Your task to perform on an android device: open app "eBay: The shopping marketplace" (install if not already installed) Image 0: 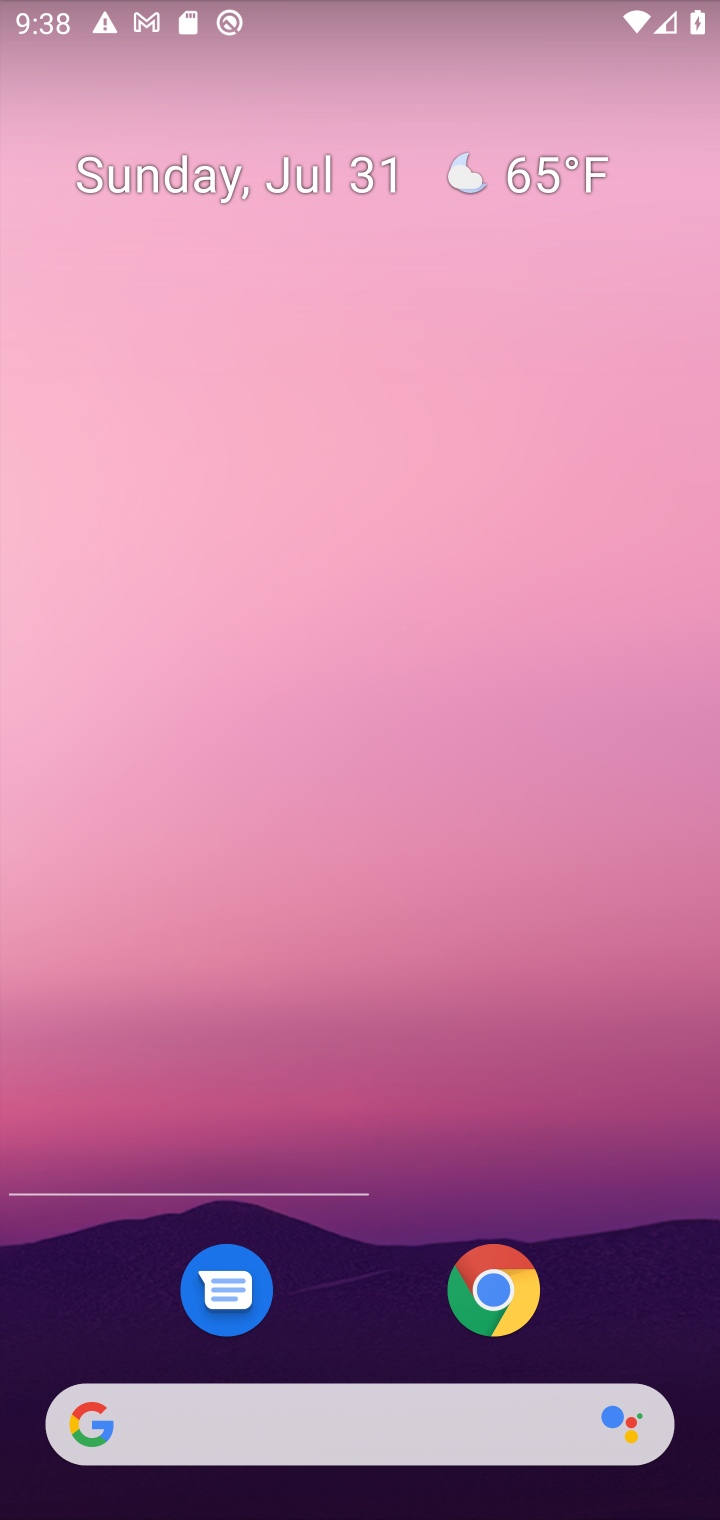
Step 0: press home button
Your task to perform on an android device: open app "eBay: The shopping marketplace" (install if not already installed) Image 1: 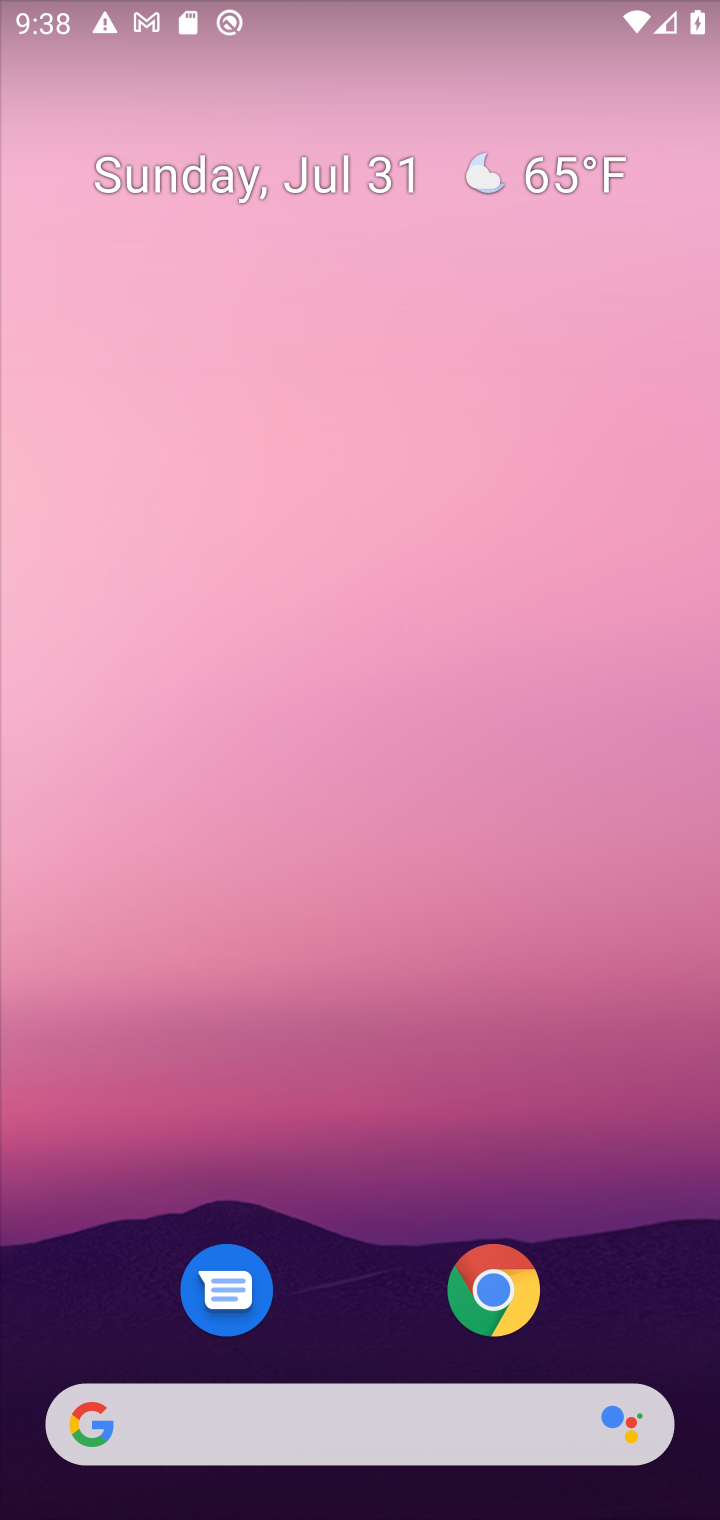
Step 1: drag from (600, 1287) to (534, 97)
Your task to perform on an android device: open app "eBay: The shopping marketplace" (install if not already installed) Image 2: 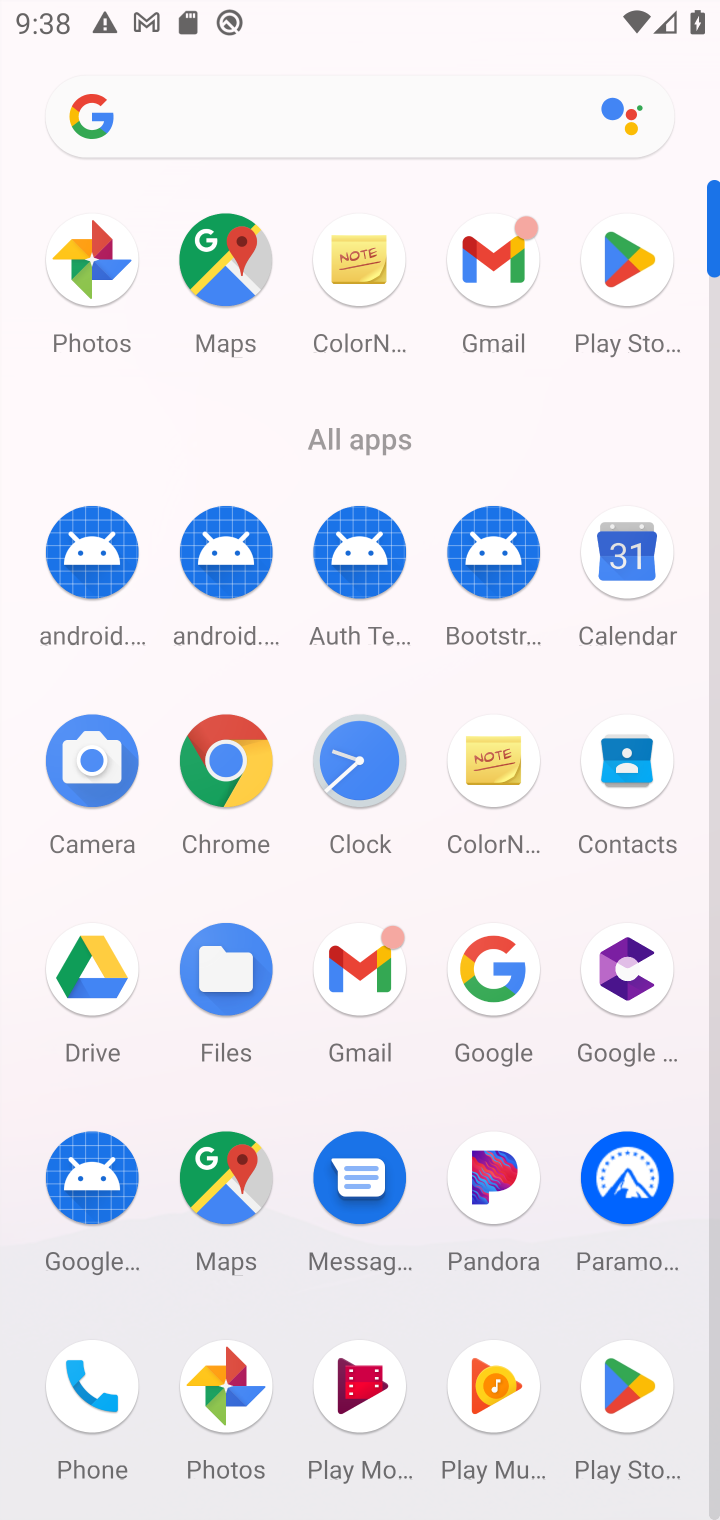
Step 2: click (619, 272)
Your task to perform on an android device: open app "eBay: The shopping marketplace" (install if not already installed) Image 3: 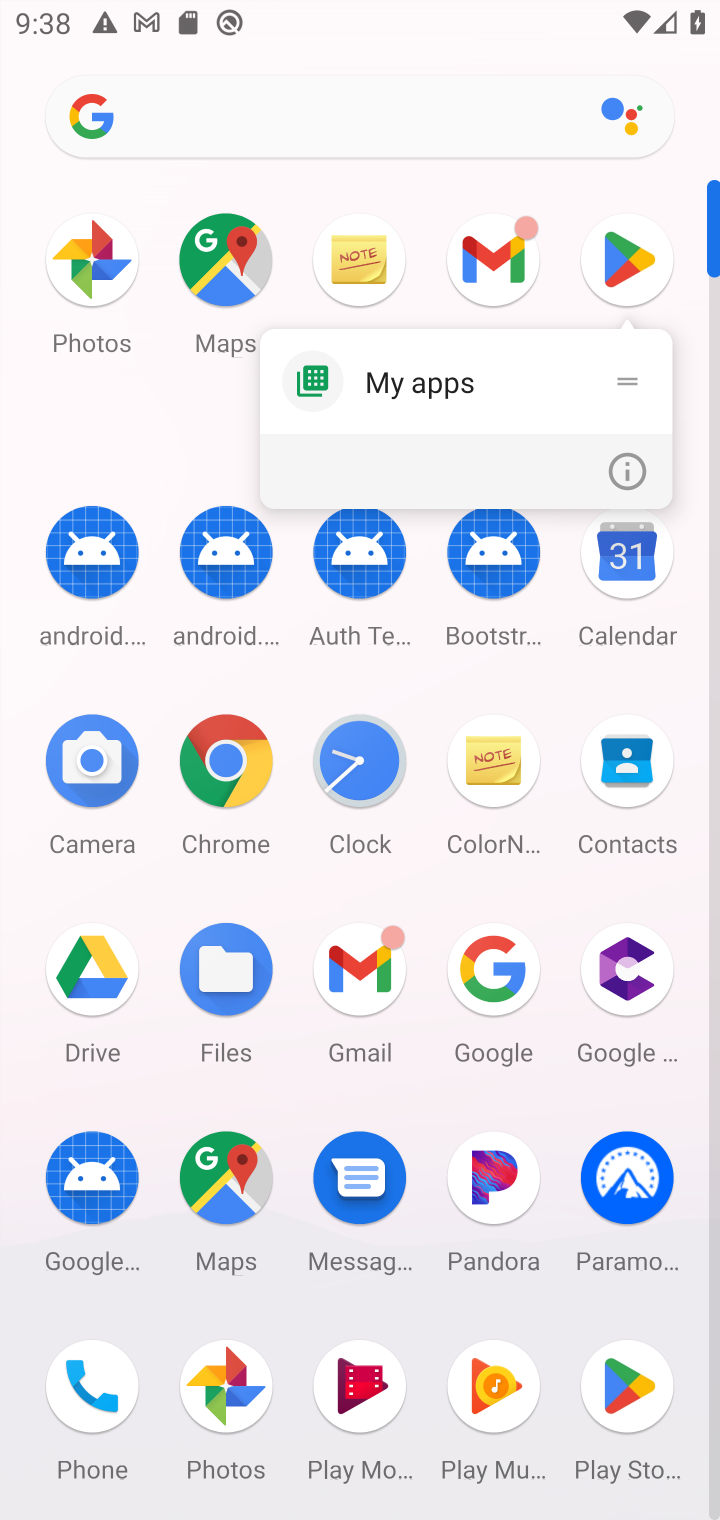
Step 3: click (619, 272)
Your task to perform on an android device: open app "eBay: The shopping marketplace" (install if not already installed) Image 4: 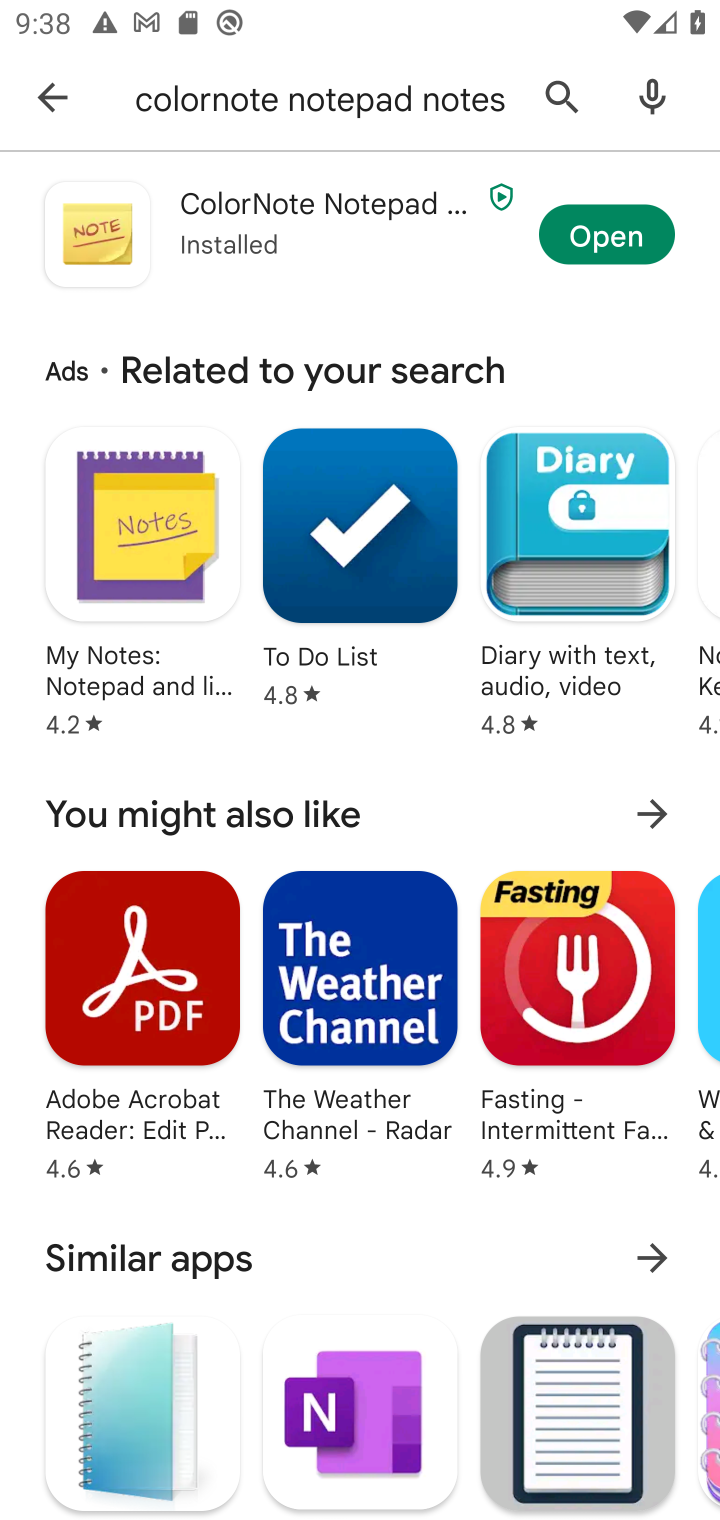
Step 4: click (562, 92)
Your task to perform on an android device: open app "eBay: The shopping marketplace" (install if not already installed) Image 5: 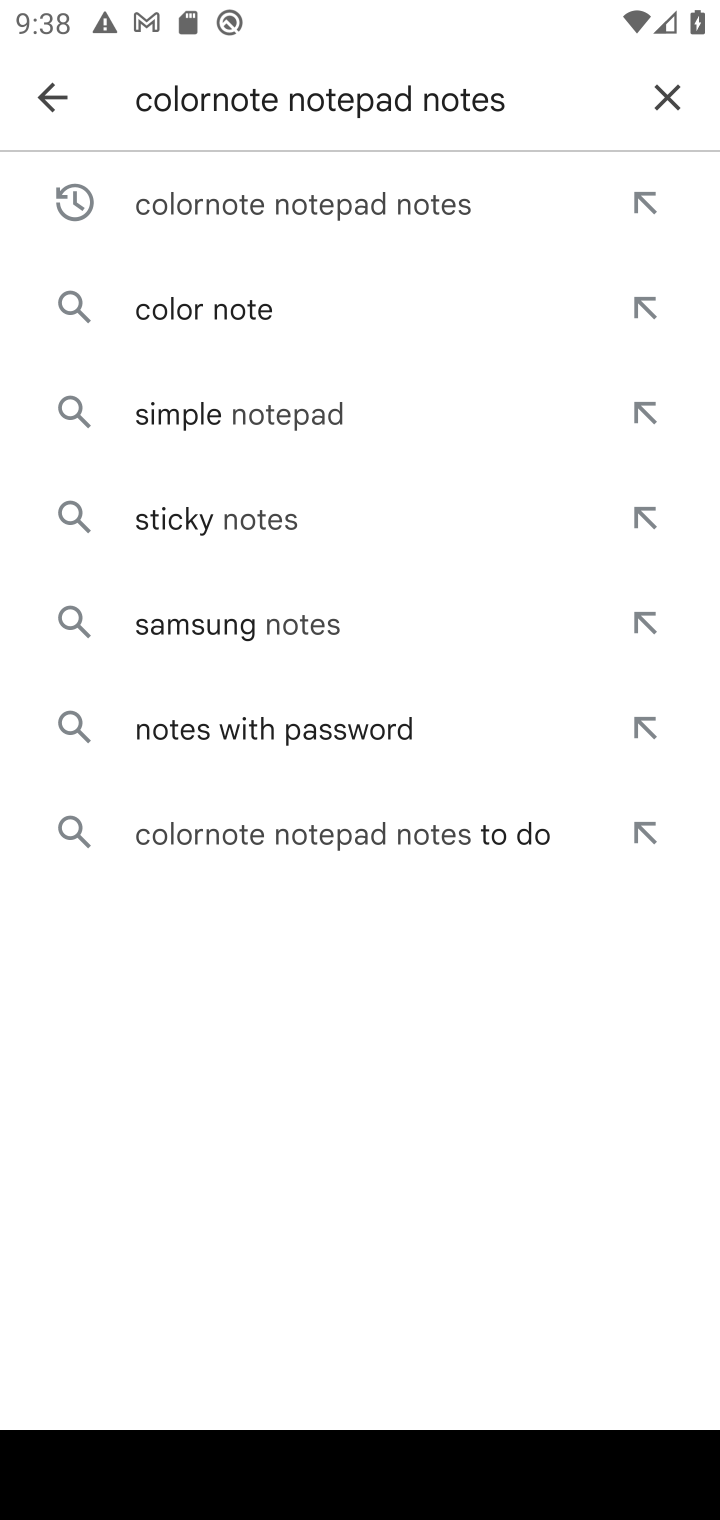
Step 5: click (667, 101)
Your task to perform on an android device: open app "eBay: The shopping marketplace" (install if not already installed) Image 6: 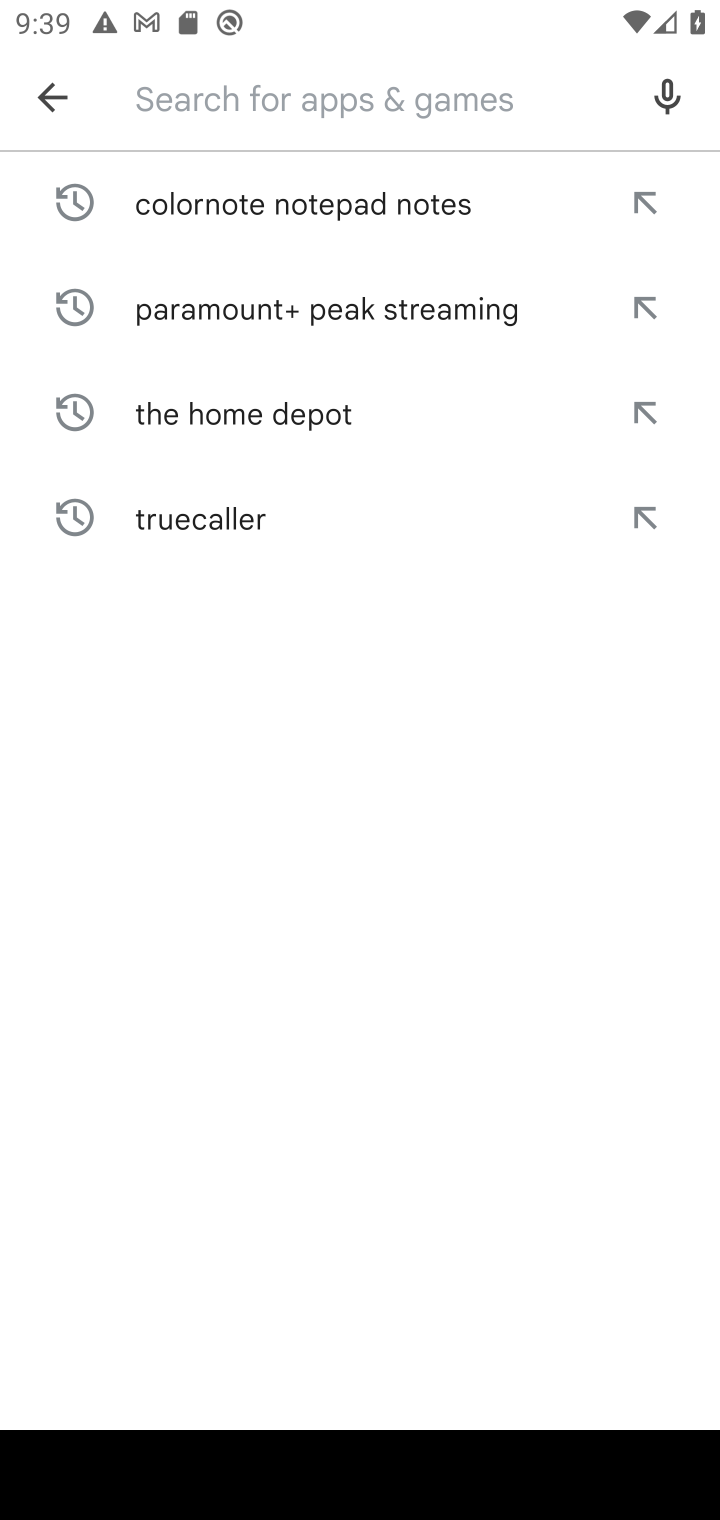
Step 6: type "ebay "
Your task to perform on an android device: open app "eBay: The shopping marketplace" (install if not already installed) Image 7: 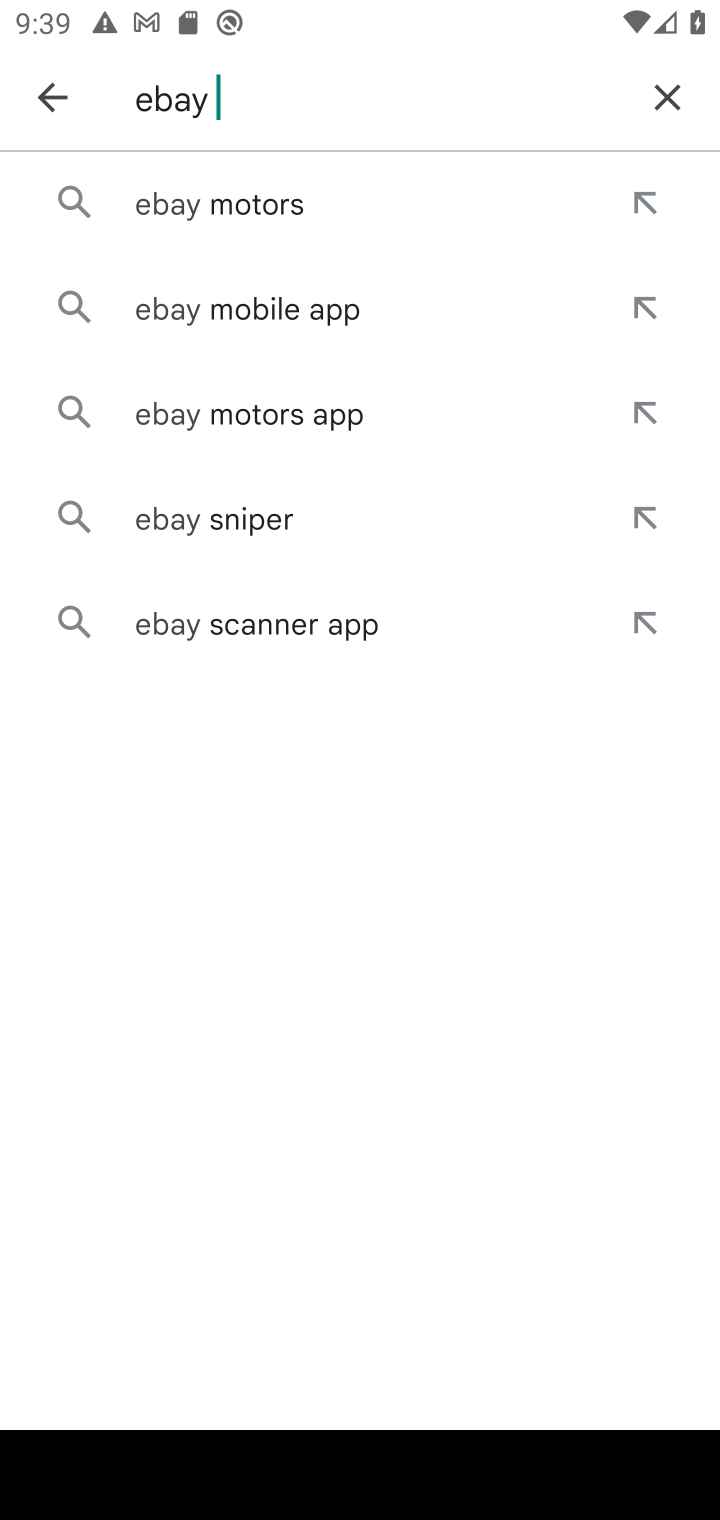
Step 7: click (653, 104)
Your task to perform on an android device: open app "eBay: The shopping marketplace" (install if not already installed) Image 8: 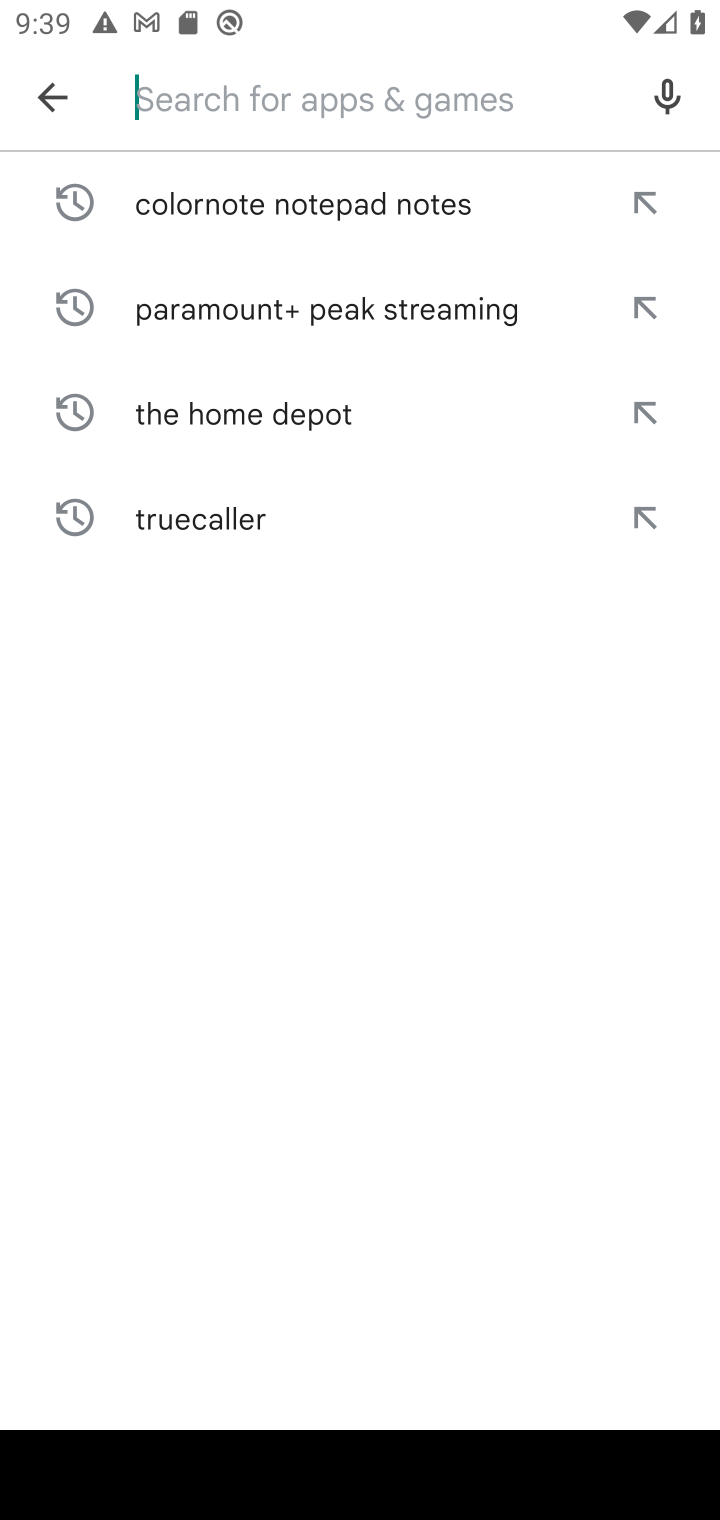
Step 8: type "eBay: The shopping marketplace"
Your task to perform on an android device: open app "eBay: The shopping marketplace" (install if not already installed) Image 9: 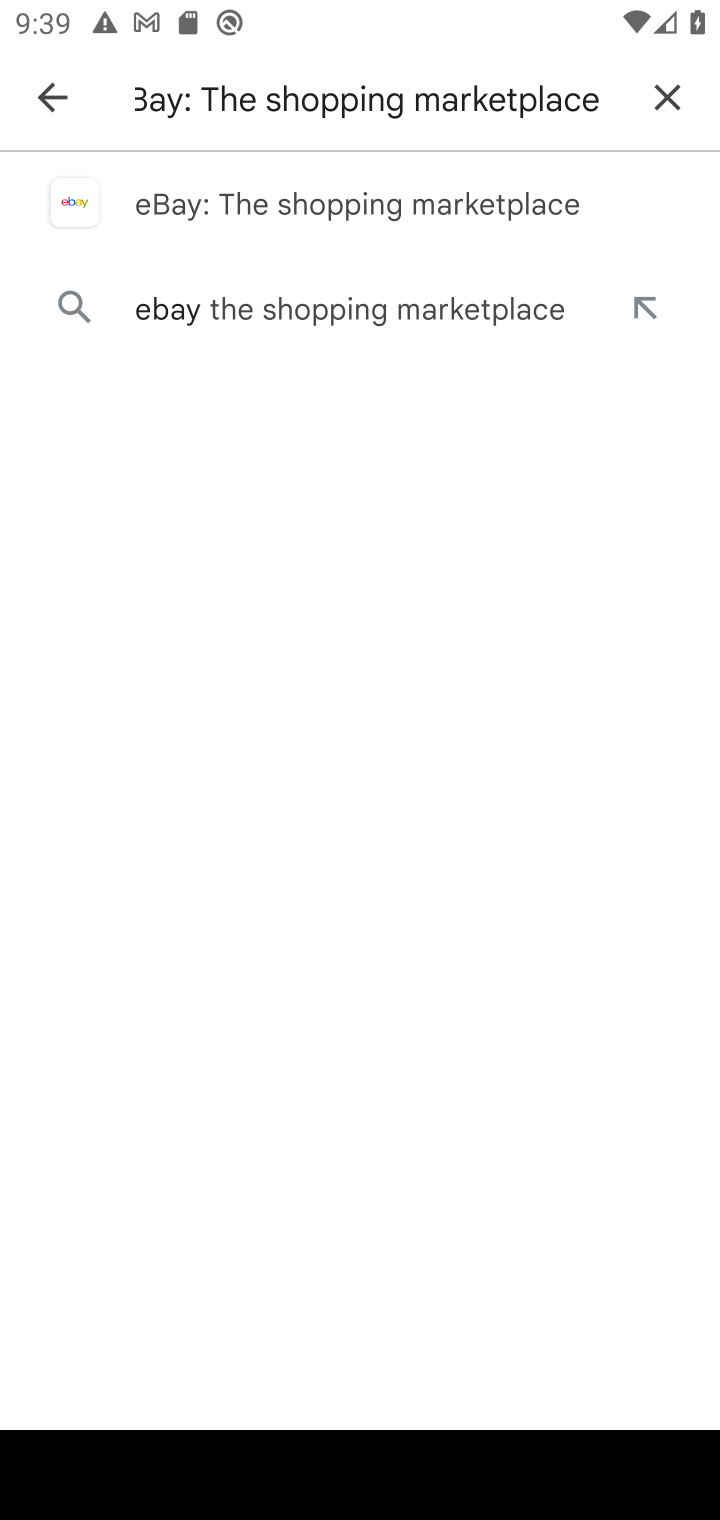
Step 9: click (446, 183)
Your task to perform on an android device: open app "eBay: The shopping marketplace" (install if not already installed) Image 10: 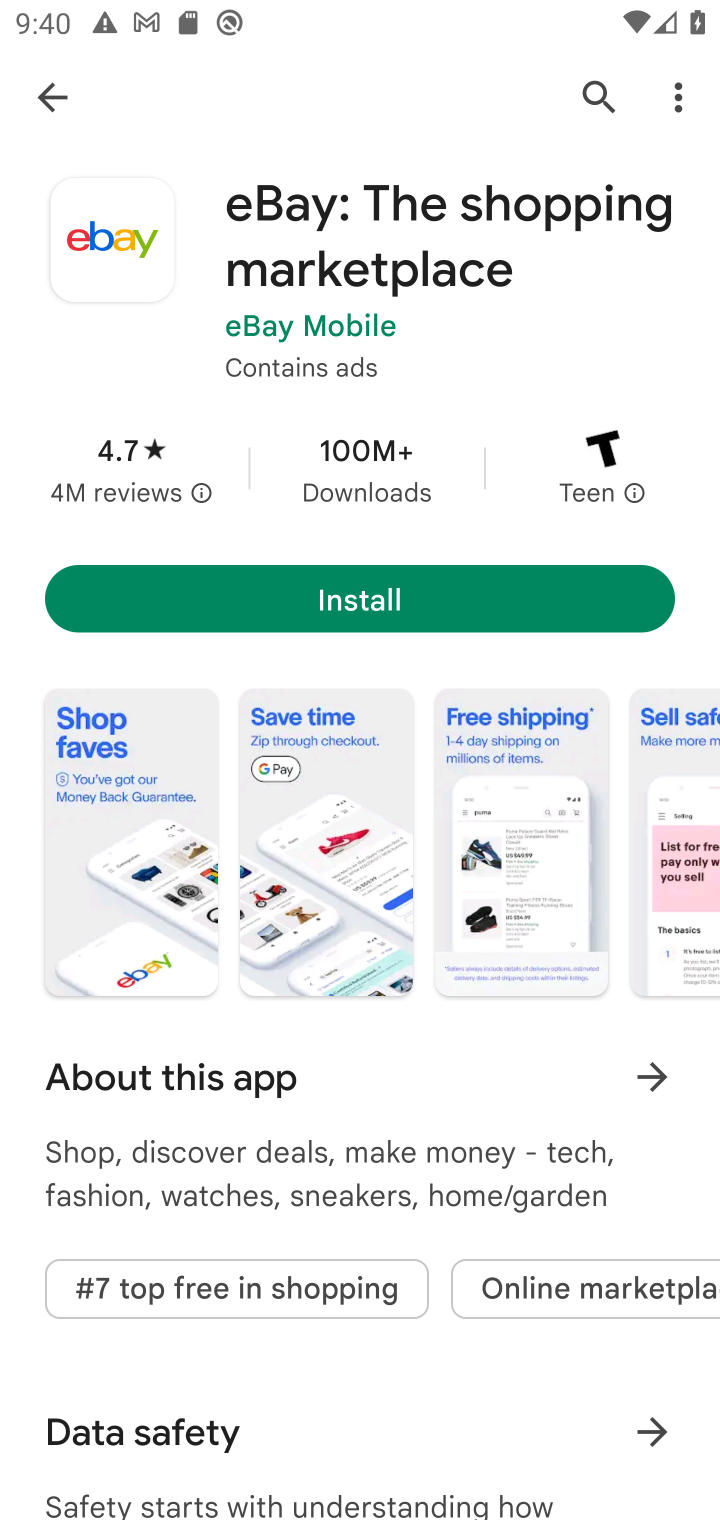
Step 10: click (375, 589)
Your task to perform on an android device: open app "eBay: The shopping marketplace" (install if not already installed) Image 11: 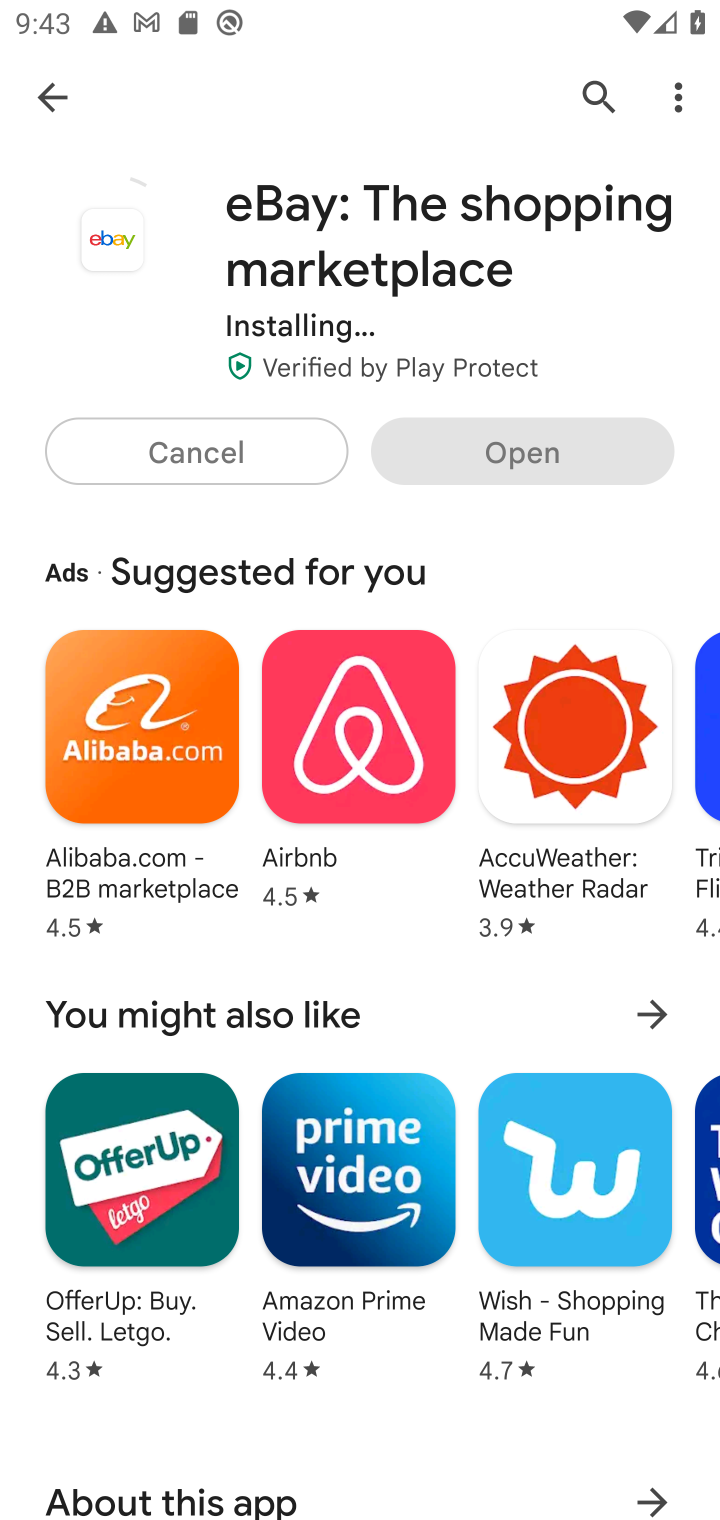
Step 11: task complete